Your task to perform on an android device: Open calendar and show me the fourth week of next month Image 0: 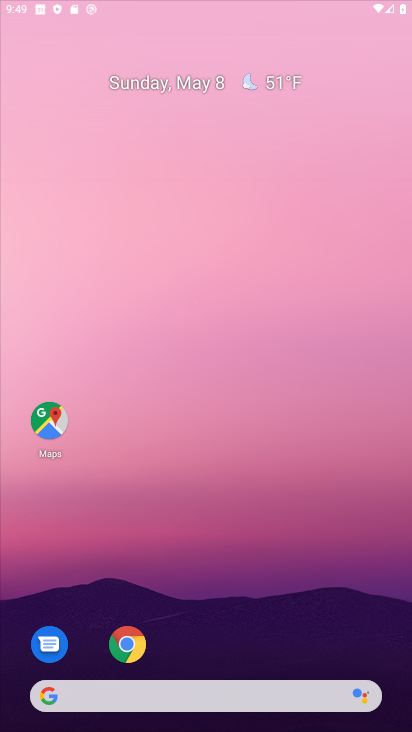
Step 0: drag from (226, 640) to (260, 167)
Your task to perform on an android device: Open calendar and show me the fourth week of next month Image 1: 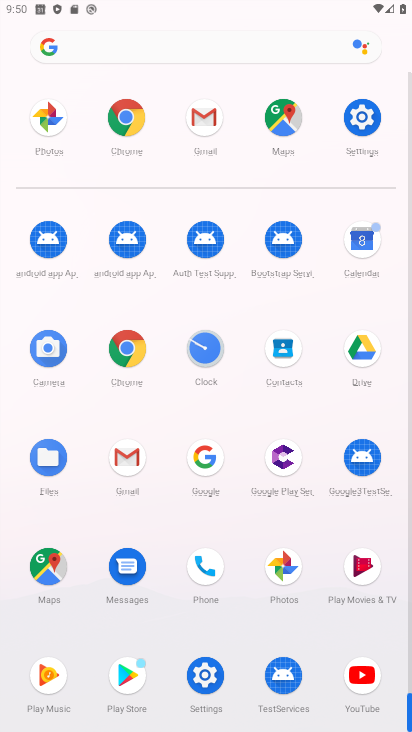
Step 1: click (363, 222)
Your task to perform on an android device: Open calendar and show me the fourth week of next month Image 2: 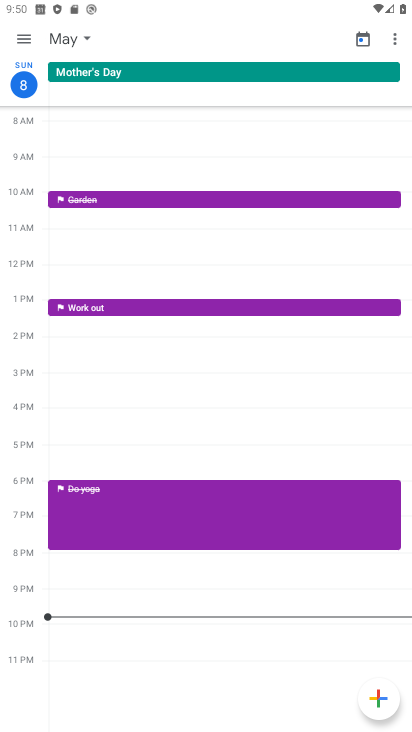
Step 2: click (64, 44)
Your task to perform on an android device: Open calendar and show me the fourth week of next month Image 3: 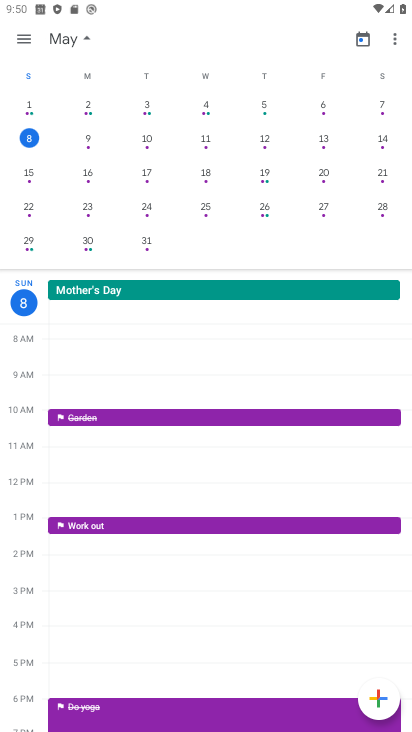
Step 3: drag from (353, 146) to (0, 158)
Your task to perform on an android device: Open calendar and show me the fourth week of next month Image 4: 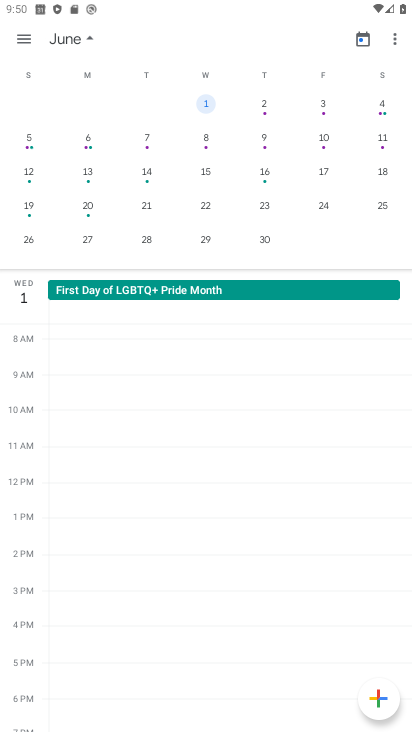
Step 4: click (266, 206)
Your task to perform on an android device: Open calendar and show me the fourth week of next month Image 5: 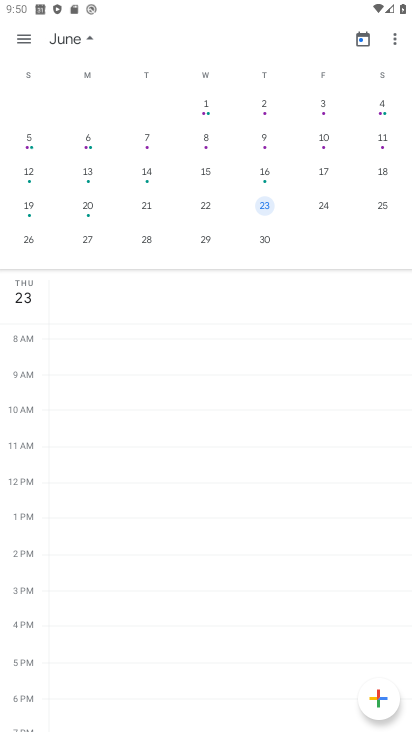
Step 5: task complete